Your task to perform on an android device: Show me recent news Image 0: 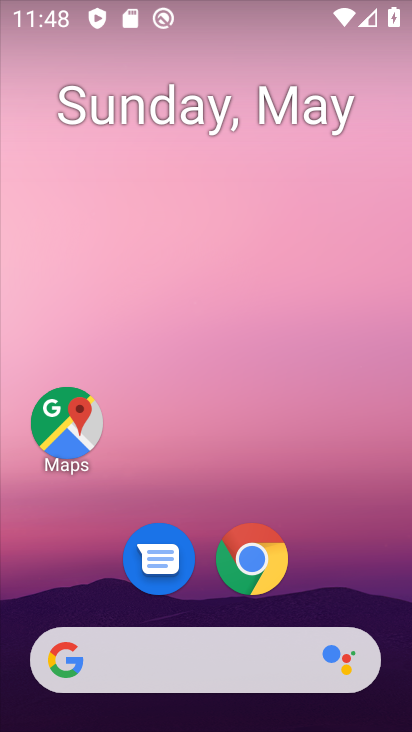
Step 0: drag from (338, 640) to (308, 9)
Your task to perform on an android device: Show me recent news Image 1: 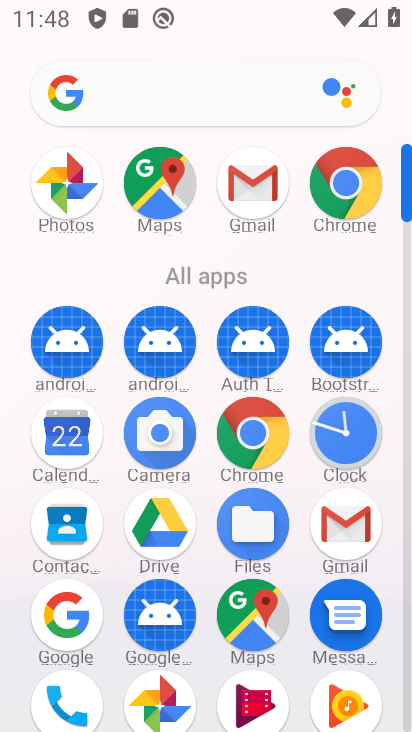
Step 1: click (256, 434)
Your task to perform on an android device: Show me recent news Image 2: 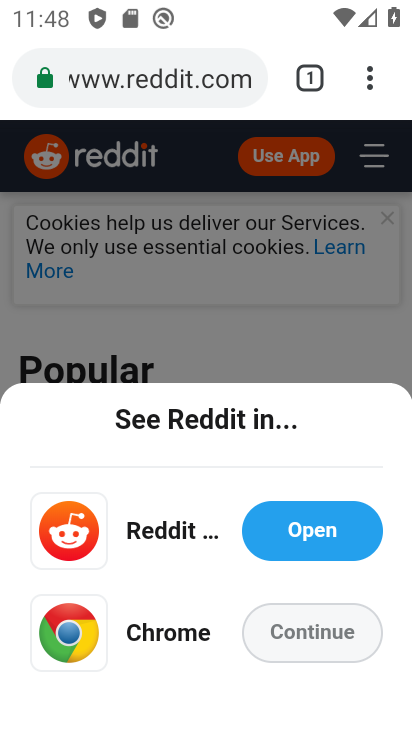
Step 2: click (235, 82)
Your task to perform on an android device: Show me recent news Image 3: 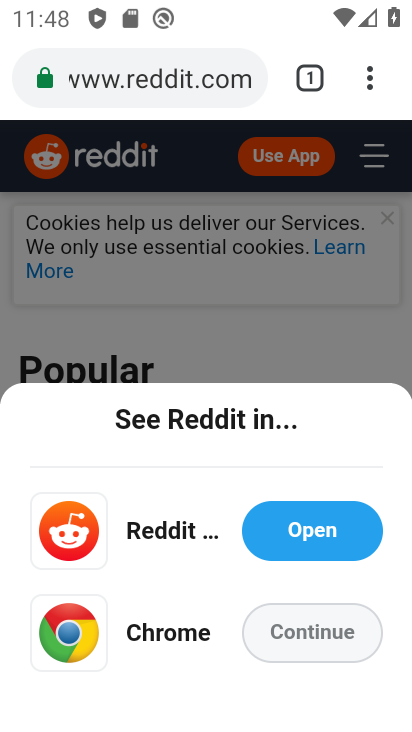
Step 3: click (235, 82)
Your task to perform on an android device: Show me recent news Image 4: 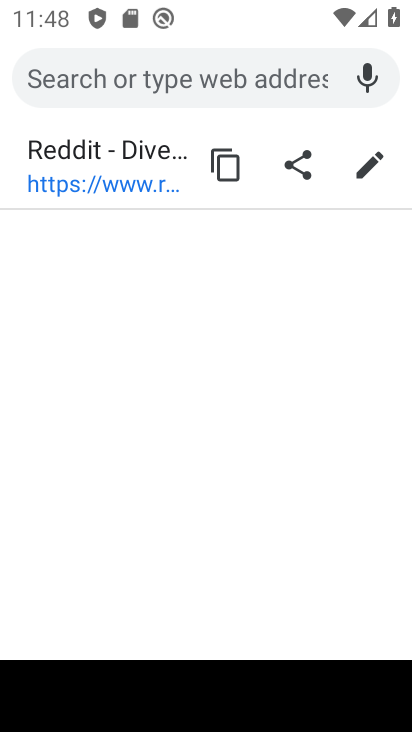
Step 4: type "recent news"
Your task to perform on an android device: Show me recent news Image 5: 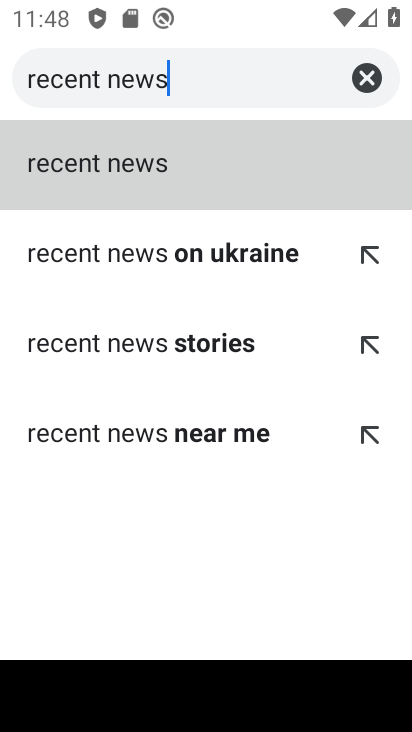
Step 5: click (111, 161)
Your task to perform on an android device: Show me recent news Image 6: 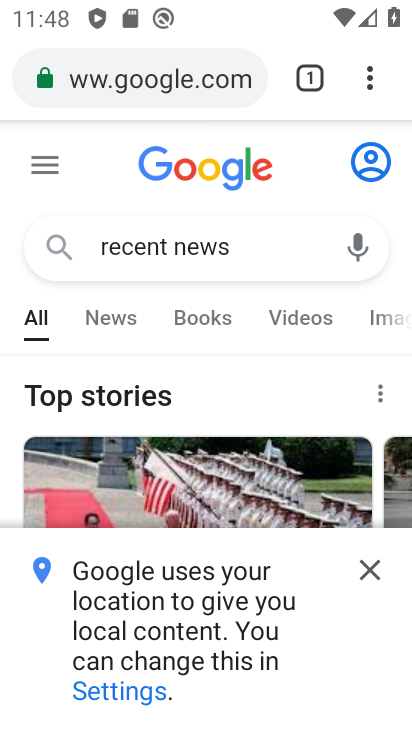
Step 6: task complete